Your task to perform on an android device: open wifi settings Image 0: 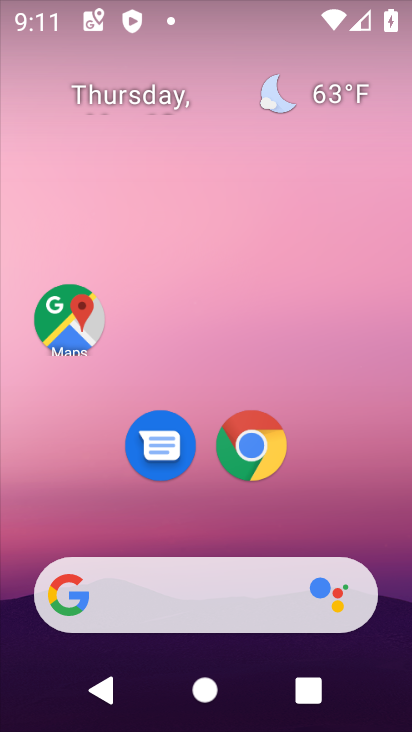
Step 0: drag from (237, 518) to (256, 39)
Your task to perform on an android device: open wifi settings Image 1: 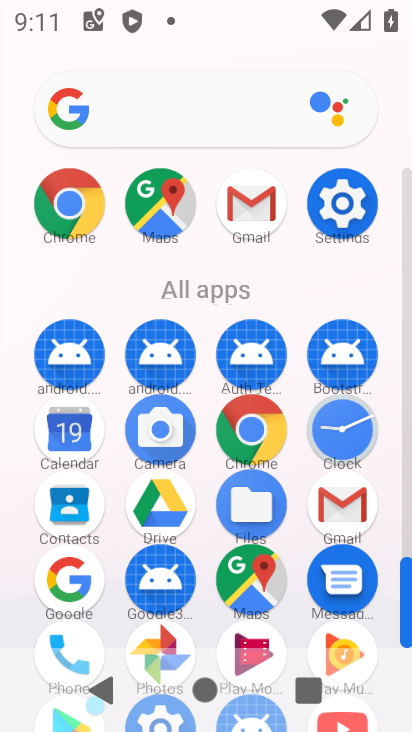
Step 1: click (359, 212)
Your task to perform on an android device: open wifi settings Image 2: 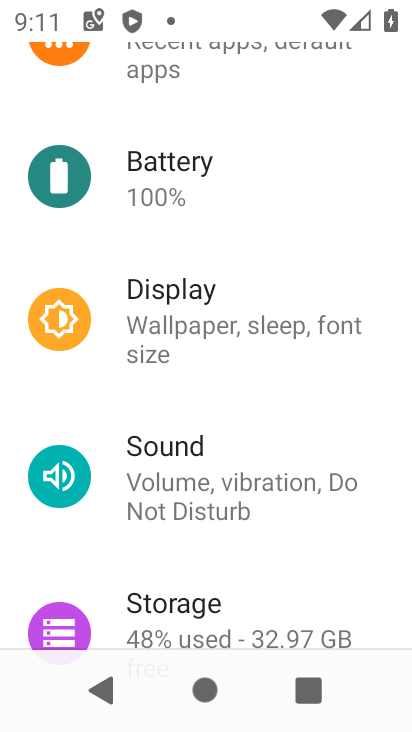
Step 2: drag from (252, 261) to (213, 672)
Your task to perform on an android device: open wifi settings Image 3: 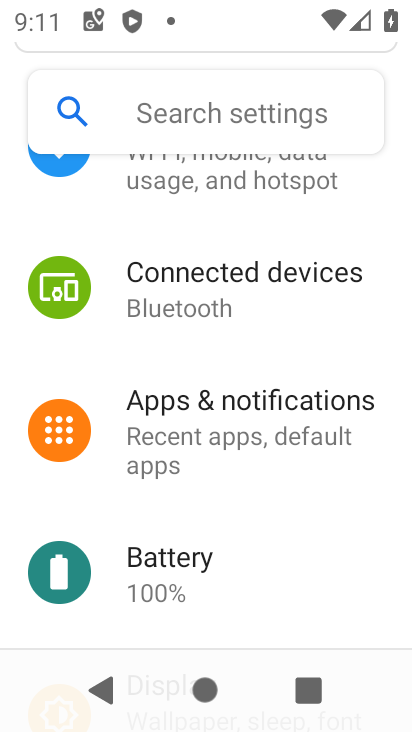
Step 3: drag from (221, 296) to (208, 537)
Your task to perform on an android device: open wifi settings Image 4: 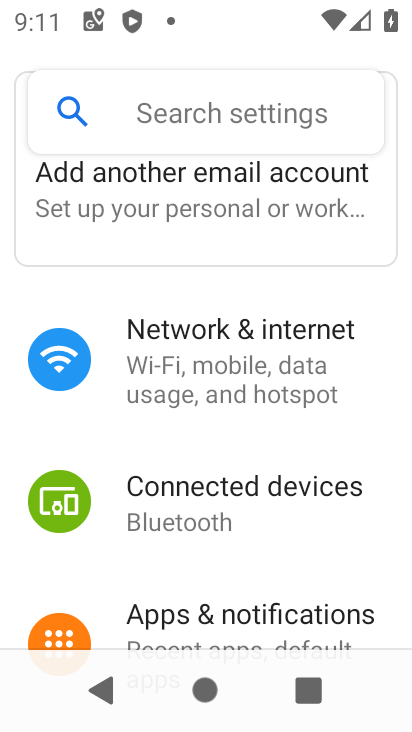
Step 4: click (235, 394)
Your task to perform on an android device: open wifi settings Image 5: 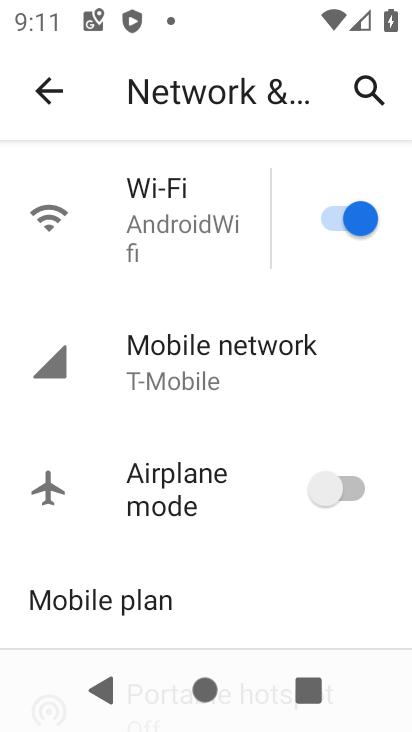
Step 5: click (199, 237)
Your task to perform on an android device: open wifi settings Image 6: 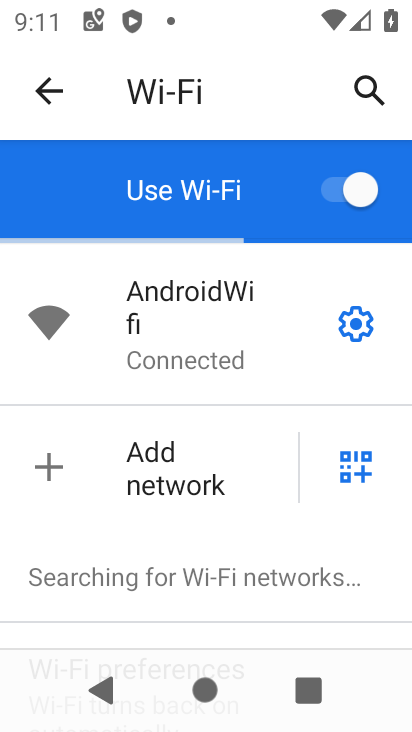
Step 6: task complete